Your task to perform on an android device: Open eBay Image 0: 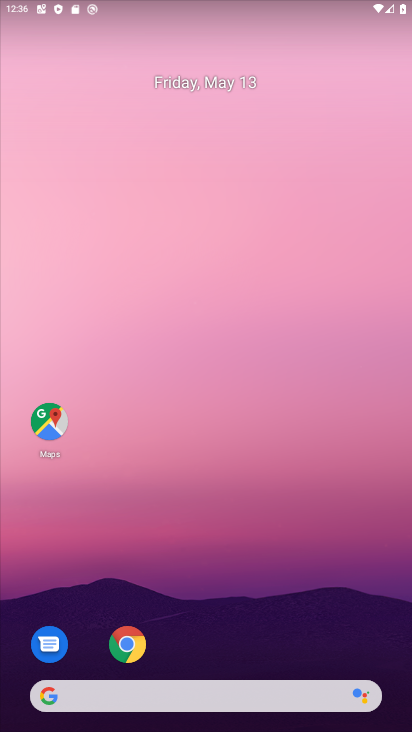
Step 0: click (137, 644)
Your task to perform on an android device: Open eBay Image 1: 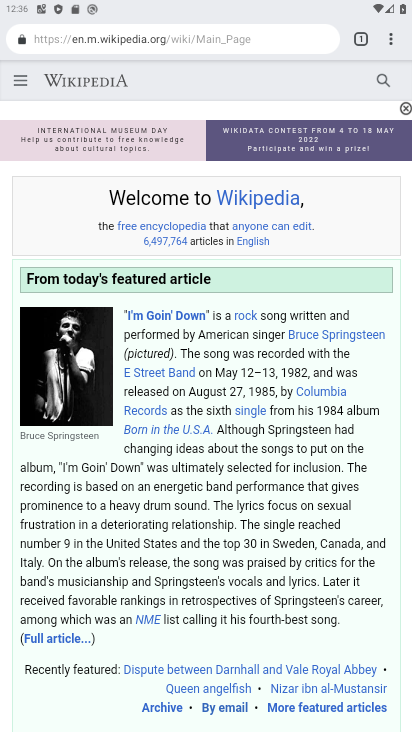
Step 1: click (363, 35)
Your task to perform on an android device: Open eBay Image 2: 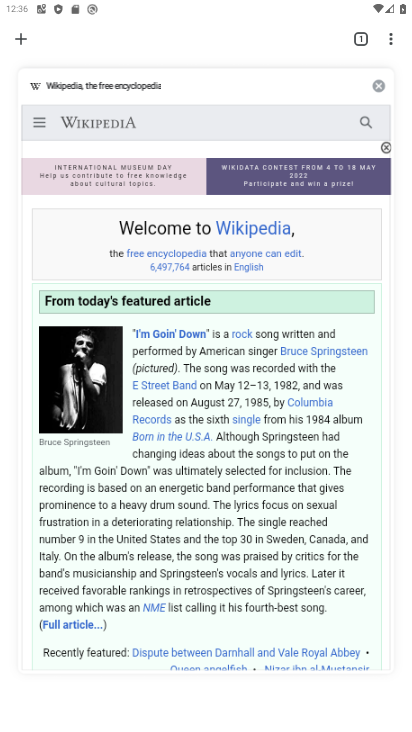
Step 2: click (21, 44)
Your task to perform on an android device: Open eBay Image 3: 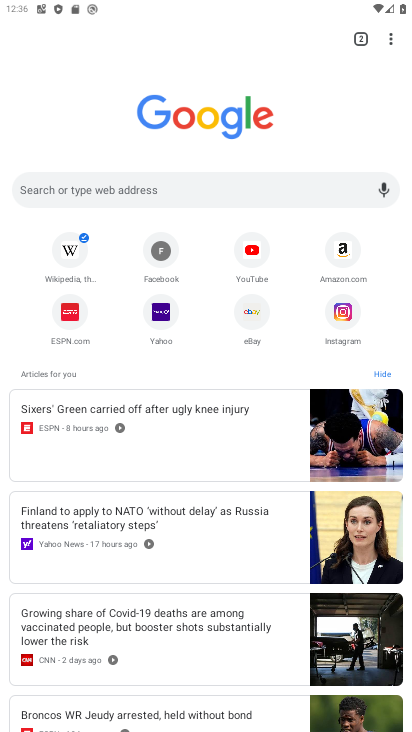
Step 3: click (249, 317)
Your task to perform on an android device: Open eBay Image 4: 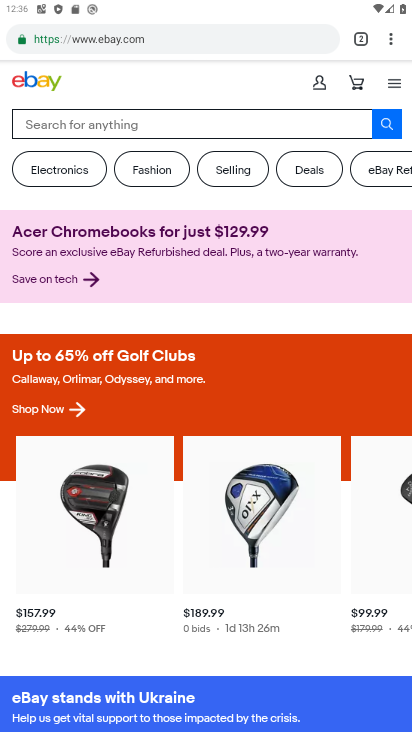
Step 4: task complete